Your task to perform on an android device: Open Google Maps and go to "Timeline" Image 0: 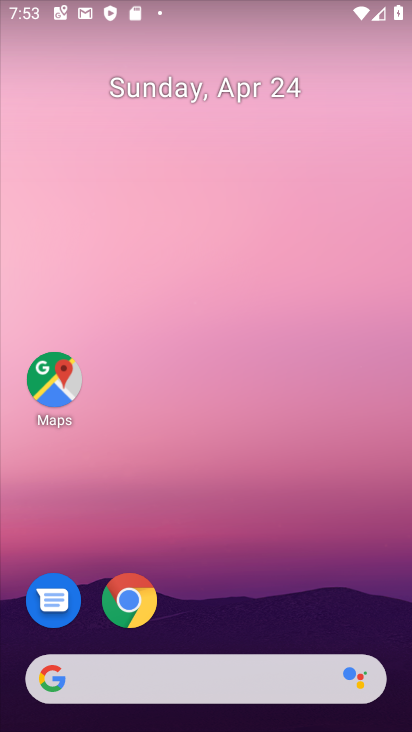
Step 0: drag from (220, 726) to (170, 99)
Your task to perform on an android device: Open Google Maps and go to "Timeline" Image 1: 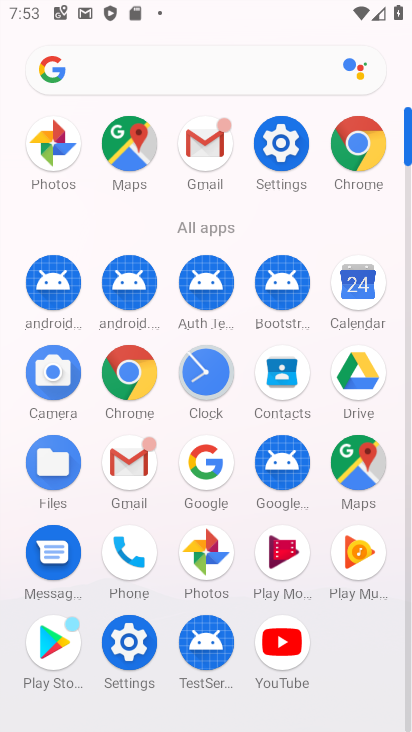
Step 1: click (129, 146)
Your task to perform on an android device: Open Google Maps and go to "Timeline" Image 2: 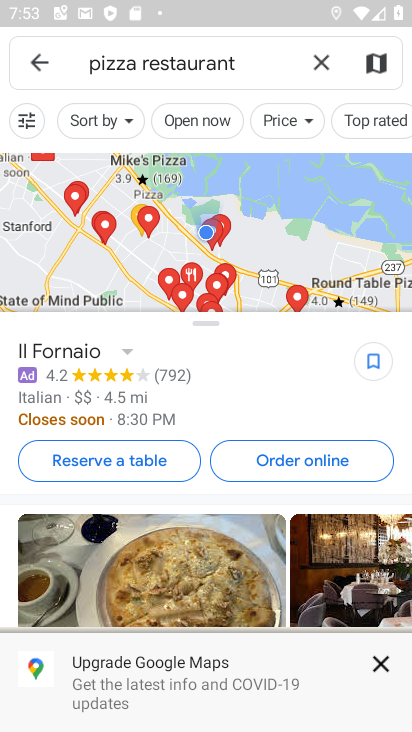
Step 2: click (43, 64)
Your task to perform on an android device: Open Google Maps and go to "Timeline" Image 3: 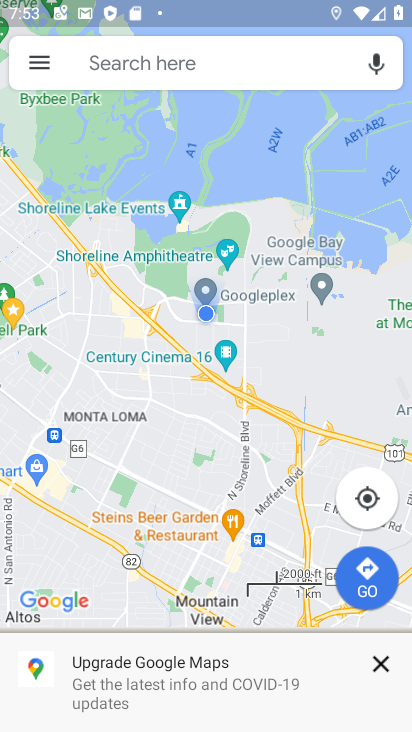
Step 3: click (43, 64)
Your task to perform on an android device: Open Google Maps and go to "Timeline" Image 4: 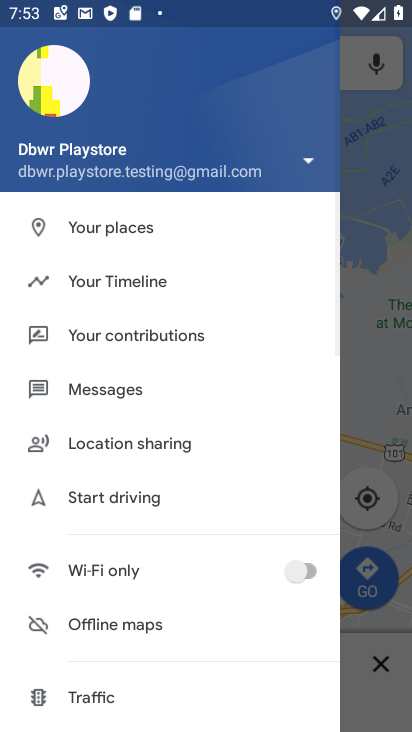
Step 4: click (106, 279)
Your task to perform on an android device: Open Google Maps and go to "Timeline" Image 5: 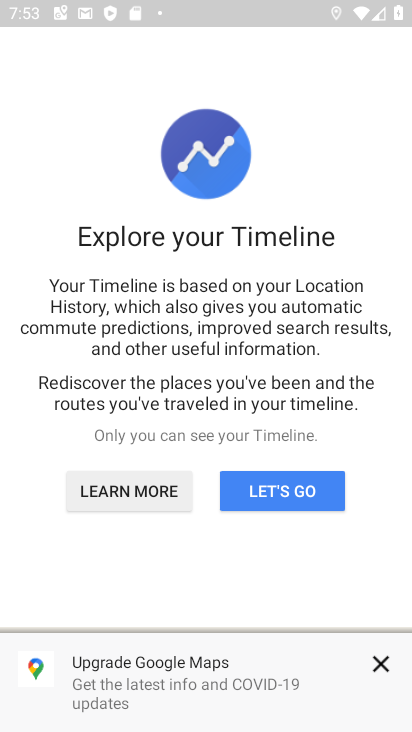
Step 5: click (291, 488)
Your task to perform on an android device: Open Google Maps and go to "Timeline" Image 6: 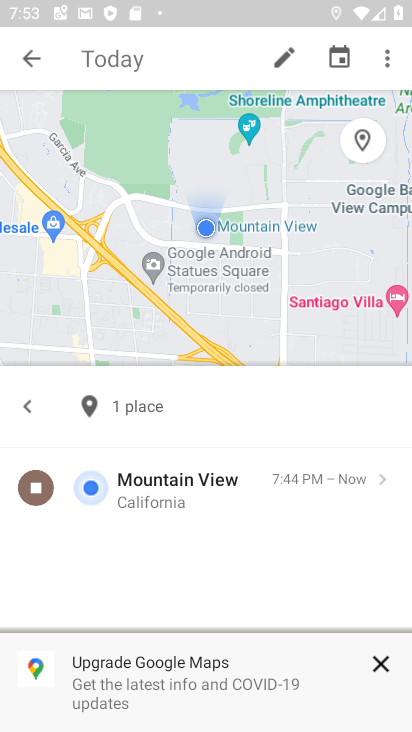
Step 6: task complete